Your task to perform on an android device: turn on javascript in the chrome app Image 0: 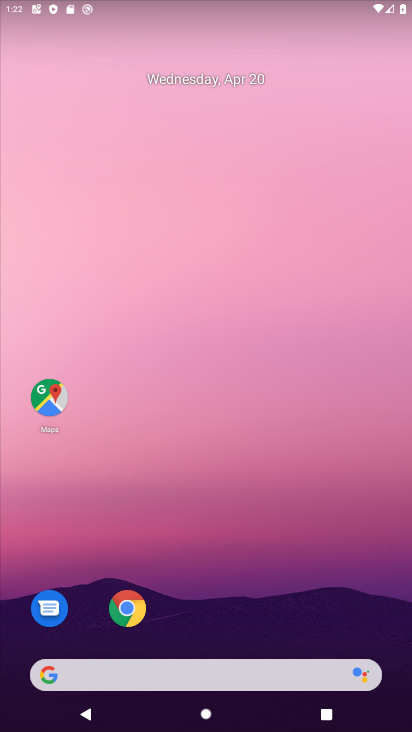
Step 0: click (128, 609)
Your task to perform on an android device: turn on javascript in the chrome app Image 1: 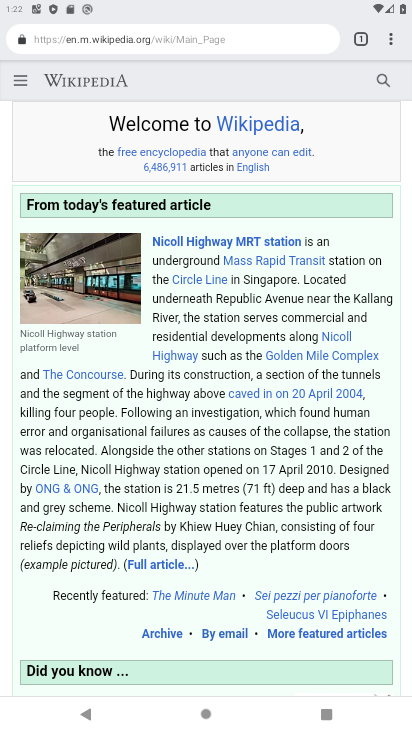
Step 1: click (392, 46)
Your task to perform on an android device: turn on javascript in the chrome app Image 2: 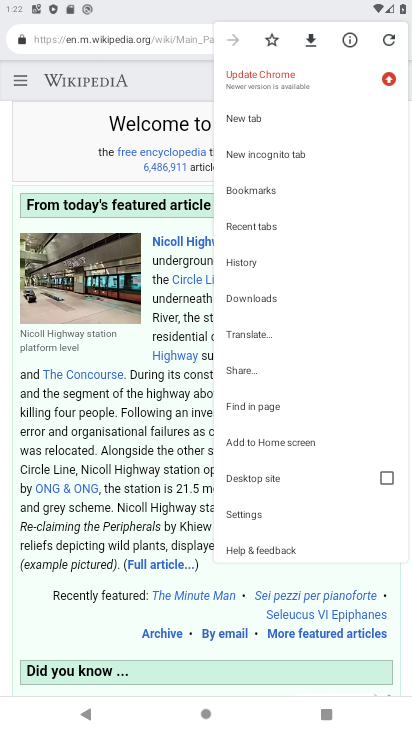
Step 2: click (239, 513)
Your task to perform on an android device: turn on javascript in the chrome app Image 3: 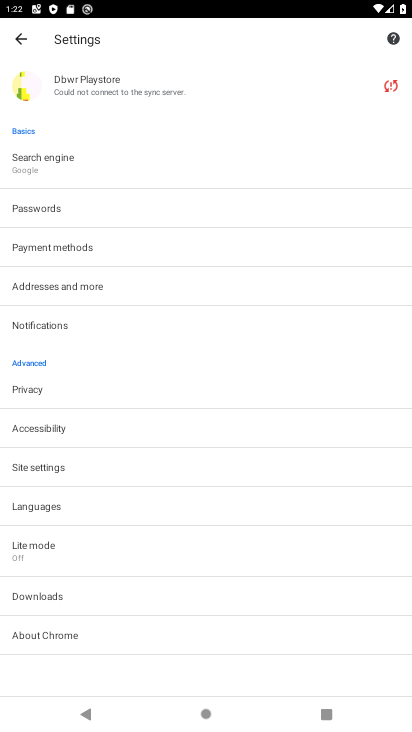
Step 3: click (48, 468)
Your task to perform on an android device: turn on javascript in the chrome app Image 4: 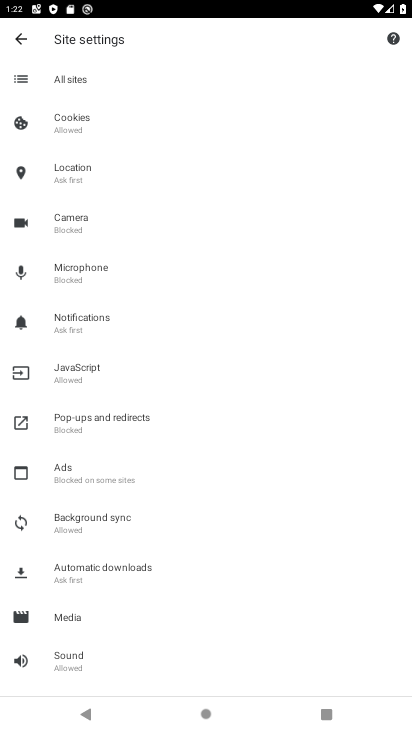
Step 4: click (69, 372)
Your task to perform on an android device: turn on javascript in the chrome app Image 5: 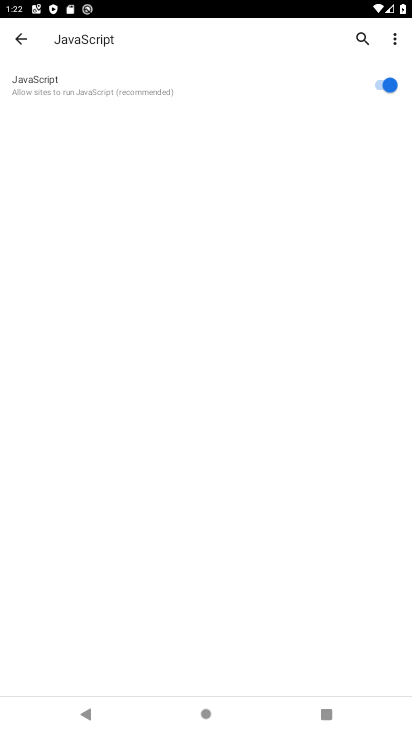
Step 5: task complete